Your task to perform on an android device: Open wifi settings Image 0: 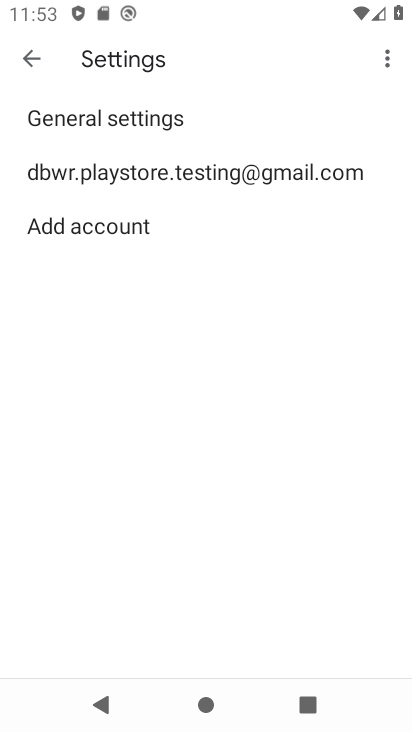
Step 0: press home button
Your task to perform on an android device: Open wifi settings Image 1: 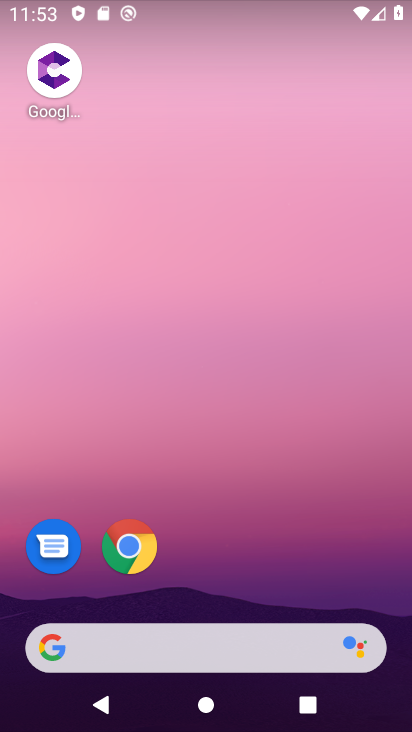
Step 1: drag from (324, 537) to (296, 246)
Your task to perform on an android device: Open wifi settings Image 2: 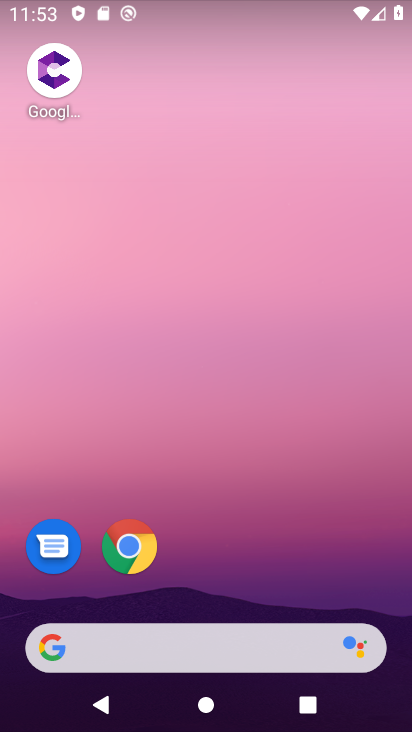
Step 2: drag from (291, 542) to (278, 146)
Your task to perform on an android device: Open wifi settings Image 3: 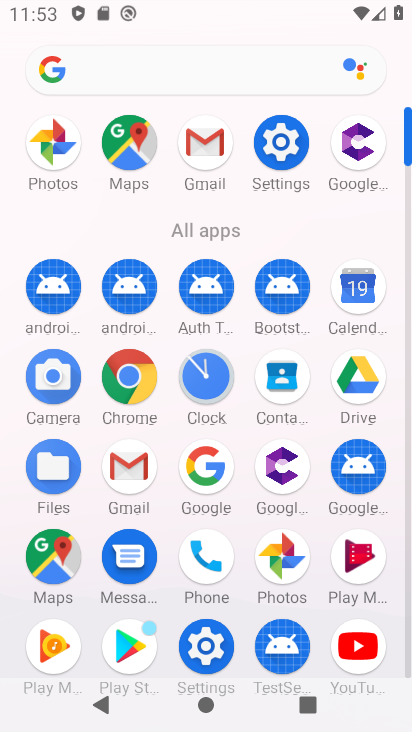
Step 3: click (274, 149)
Your task to perform on an android device: Open wifi settings Image 4: 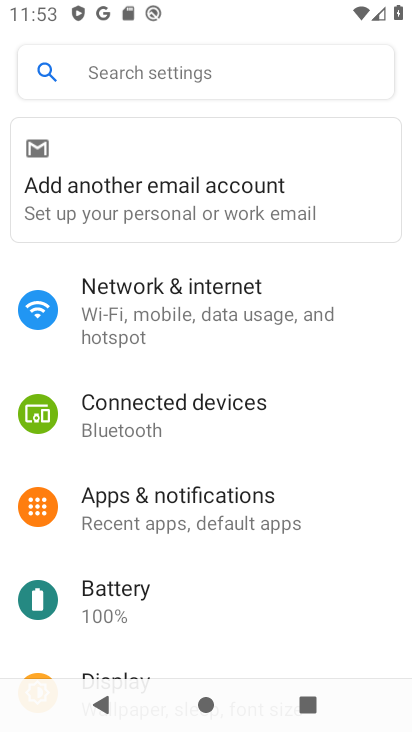
Step 4: click (225, 298)
Your task to perform on an android device: Open wifi settings Image 5: 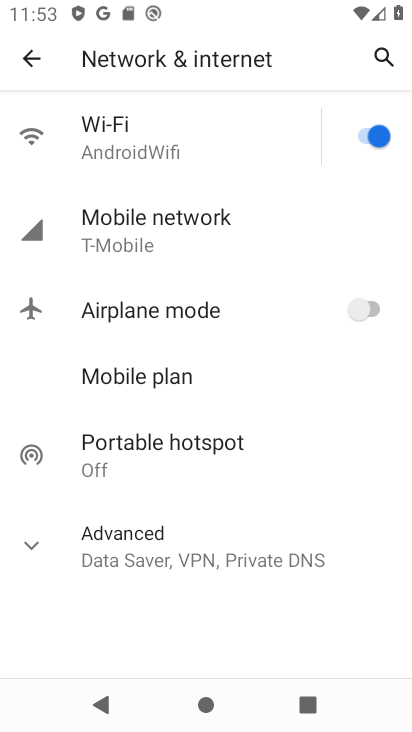
Step 5: click (185, 117)
Your task to perform on an android device: Open wifi settings Image 6: 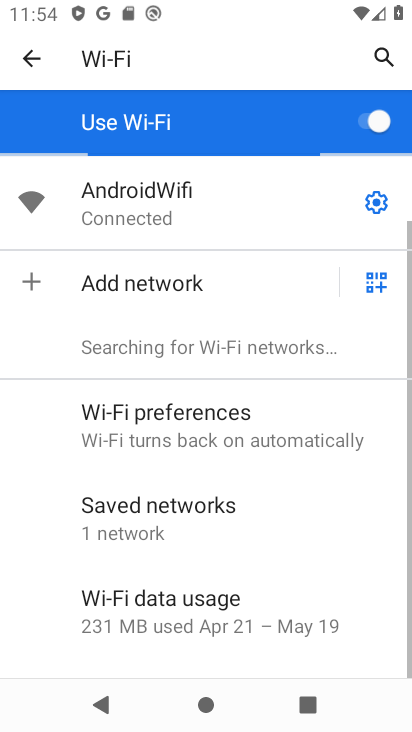
Step 6: click (387, 200)
Your task to perform on an android device: Open wifi settings Image 7: 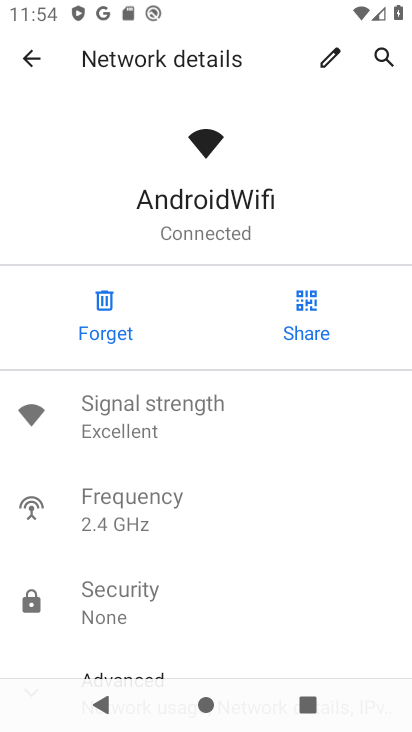
Step 7: task complete